Your task to perform on an android device: open app "Messages" (install if not already installed) and go to login screen Image 0: 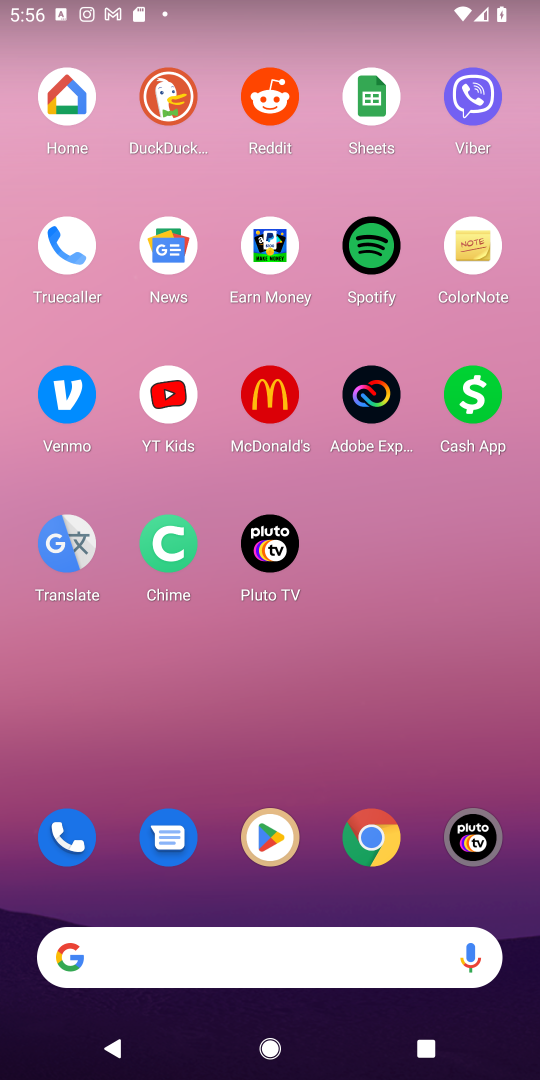
Step 0: press home button
Your task to perform on an android device: open app "Messages" (install if not already installed) and go to login screen Image 1: 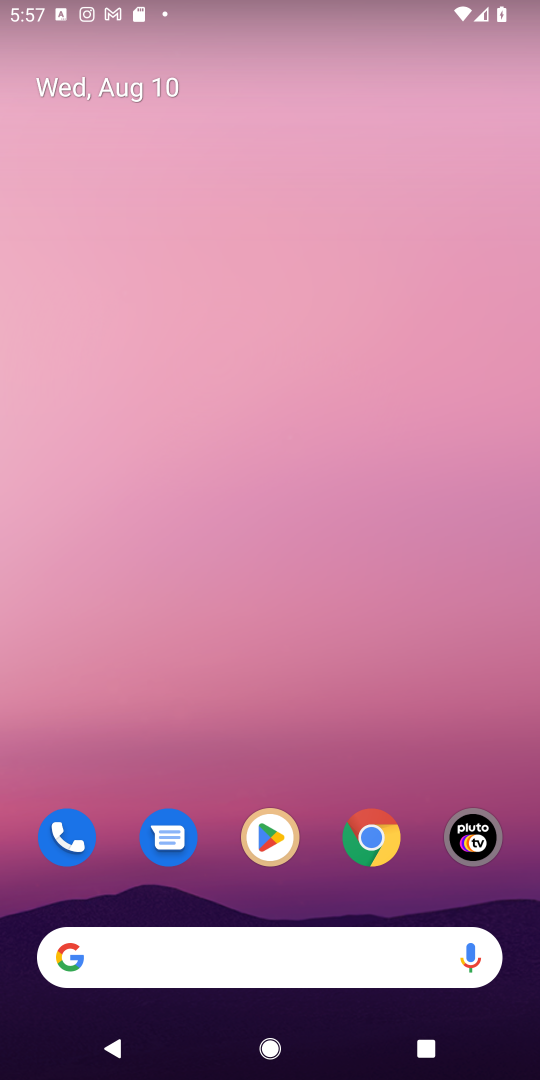
Step 1: click (267, 839)
Your task to perform on an android device: open app "Messages" (install if not already installed) and go to login screen Image 2: 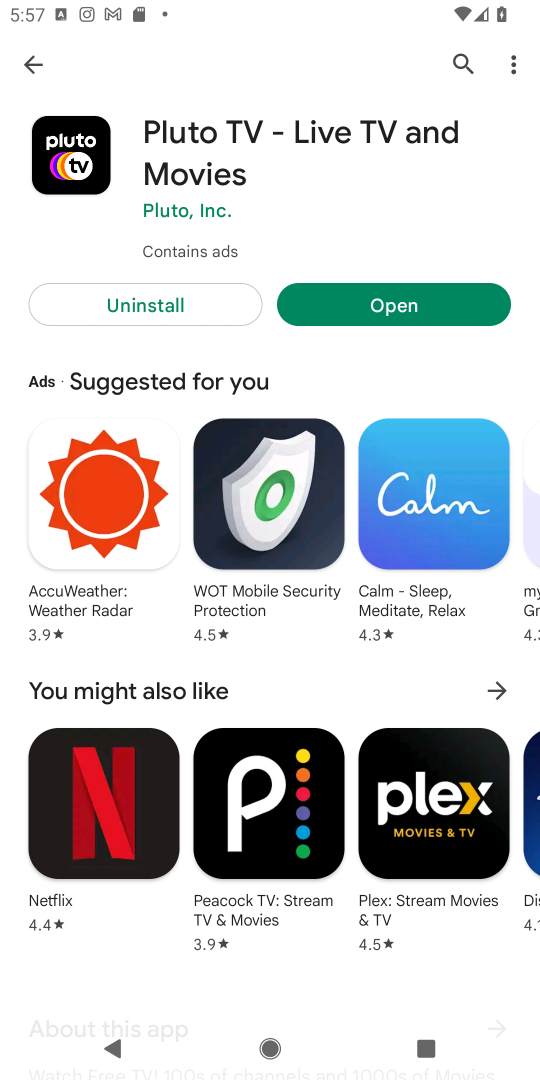
Step 2: click (453, 56)
Your task to perform on an android device: open app "Messages" (install if not already installed) and go to login screen Image 3: 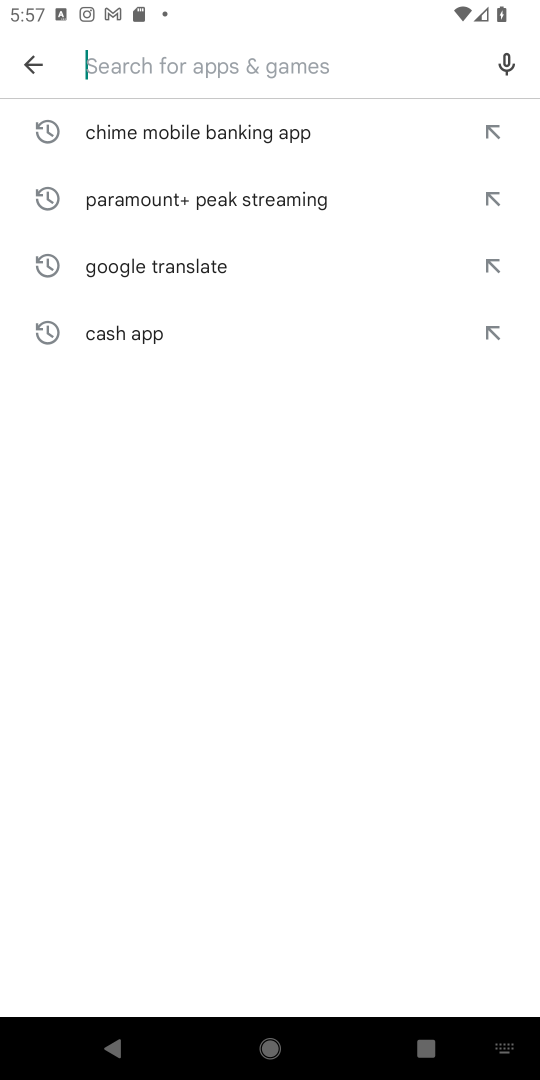
Step 3: type "Messages"
Your task to perform on an android device: open app "Messages" (install if not already installed) and go to login screen Image 4: 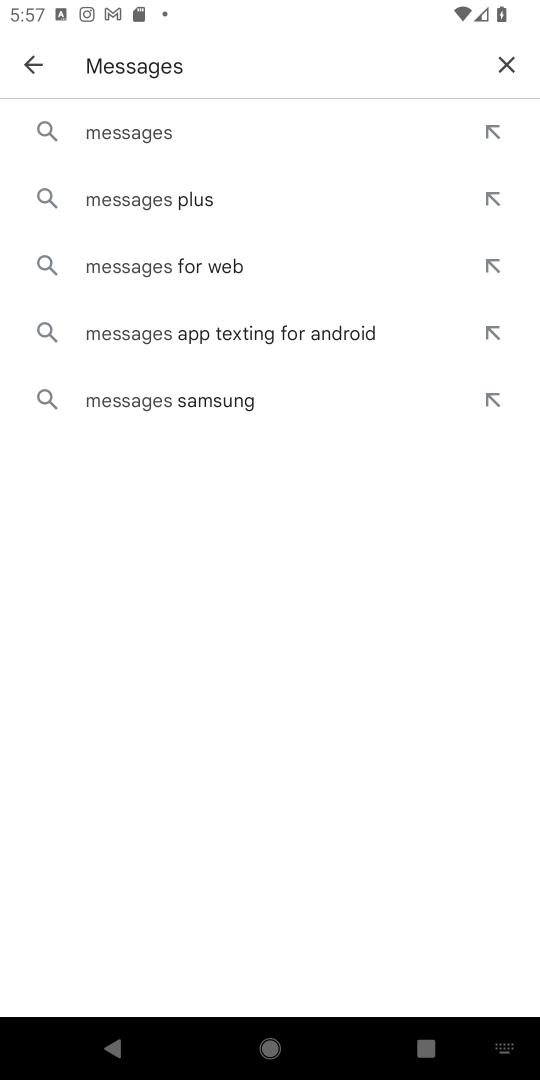
Step 4: click (149, 123)
Your task to perform on an android device: open app "Messages" (install if not already installed) and go to login screen Image 5: 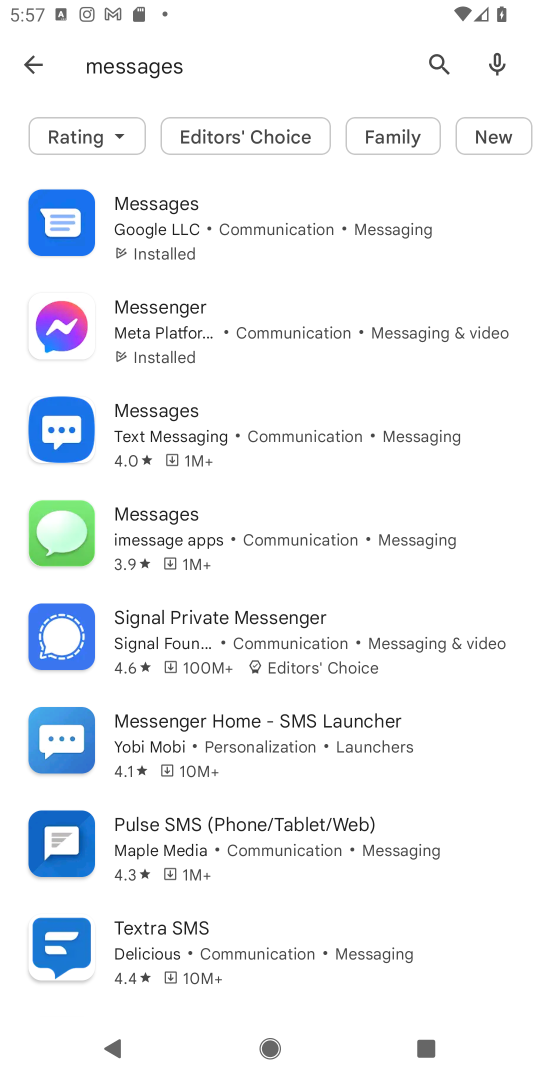
Step 5: click (158, 233)
Your task to perform on an android device: open app "Messages" (install if not already installed) and go to login screen Image 6: 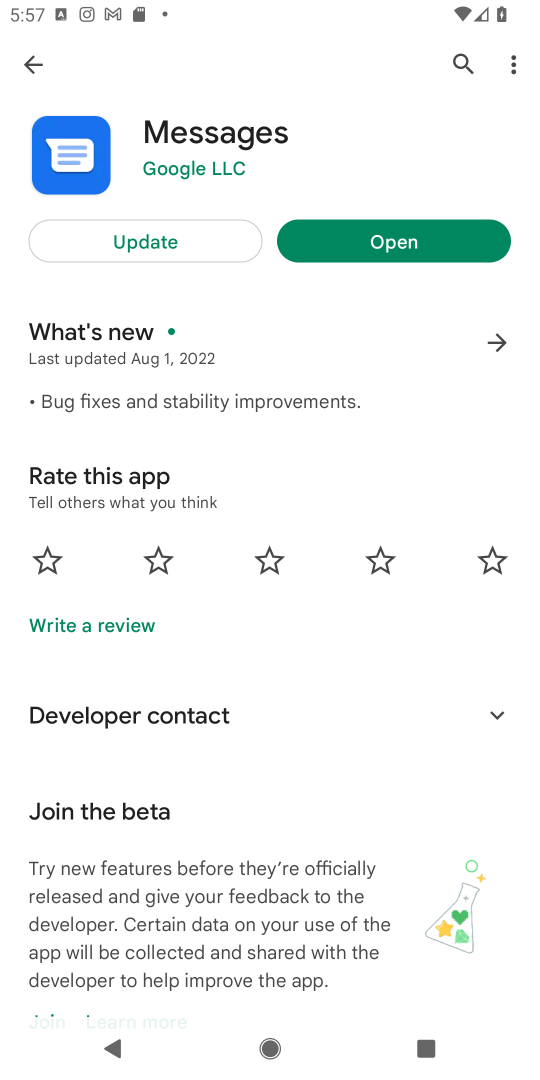
Step 6: click (374, 233)
Your task to perform on an android device: open app "Messages" (install if not already installed) and go to login screen Image 7: 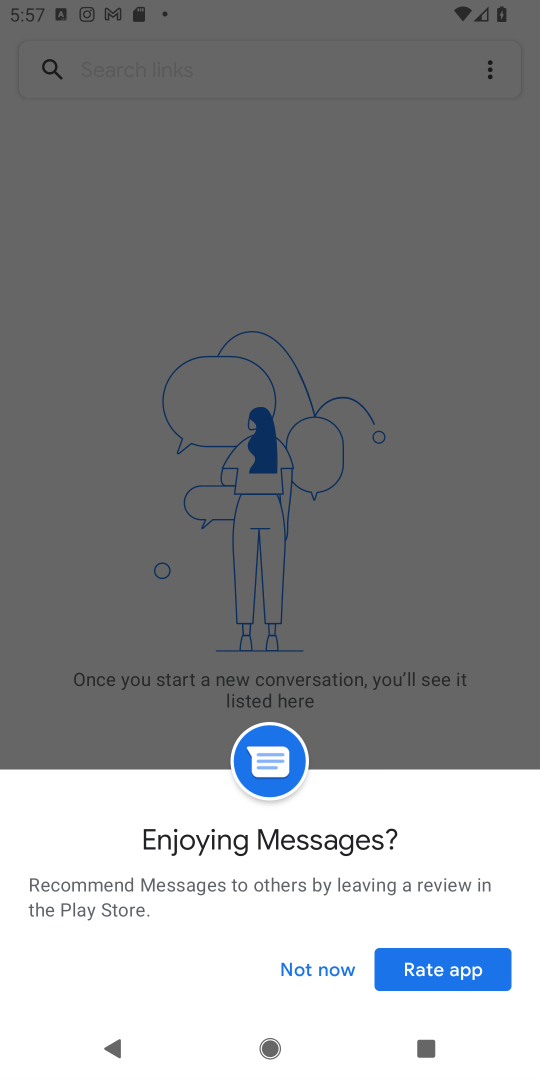
Step 7: task complete